Your task to perform on an android device: Open the web browser Image 0: 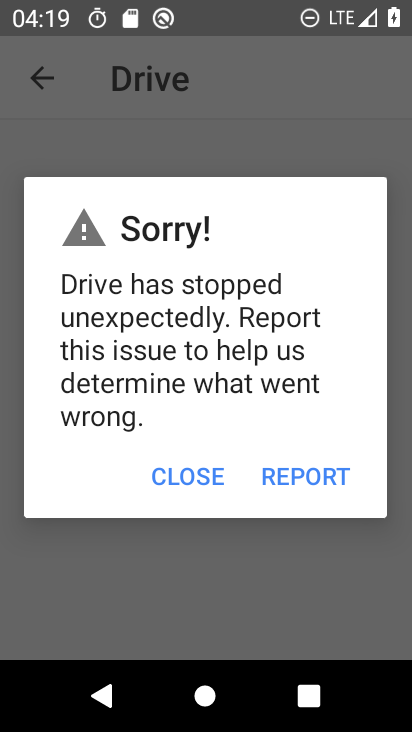
Step 0: press back button
Your task to perform on an android device: Open the web browser Image 1: 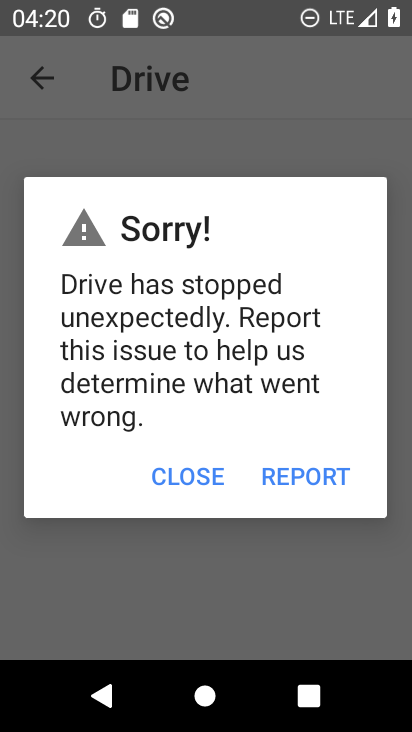
Step 1: press back button
Your task to perform on an android device: Open the web browser Image 2: 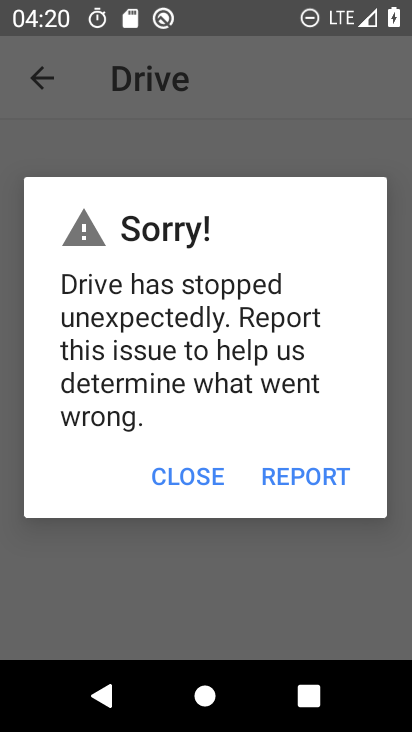
Step 2: press home button
Your task to perform on an android device: Open the web browser Image 3: 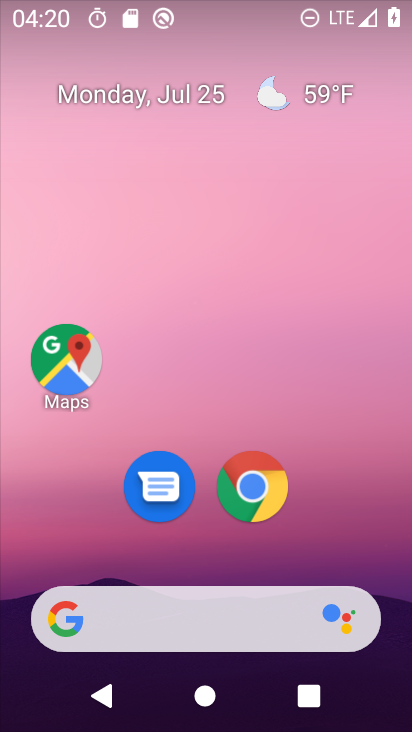
Step 3: click (247, 497)
Your task to perform on an android device: Open the web browser Image 4: 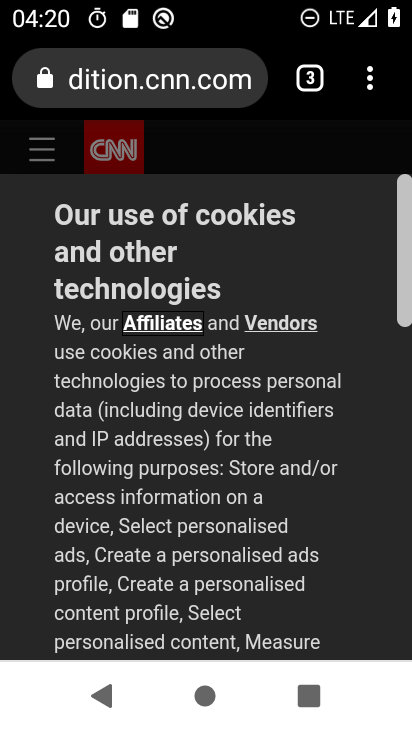
Step 4: task complete